Your task to perform on an android device: change notification settings in the gmail app Image 0: 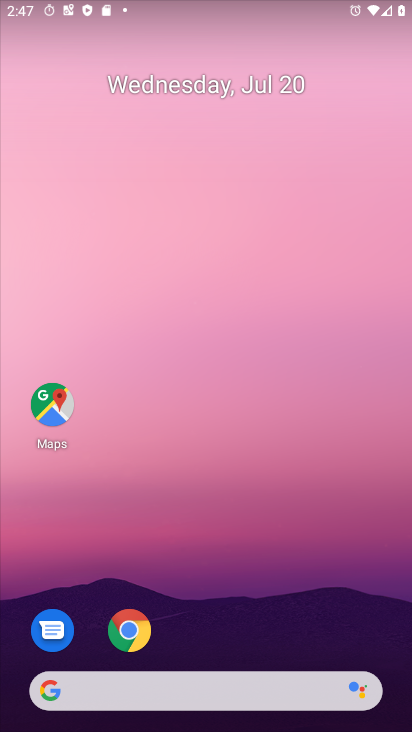
Step 0: drag from (175, 685) to (279, 190)
Your task to perform on an android device: change notification settings in the gmail app Image 1: 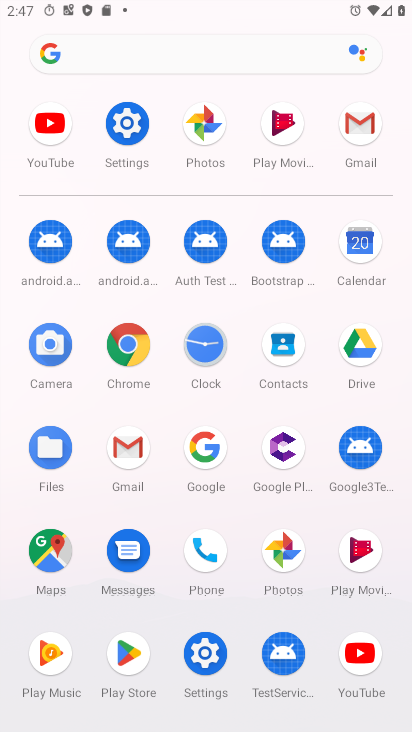
Step 1: click (361, 129)
Your task to perform on an android device: change notification settings in the gmail app Image 2: 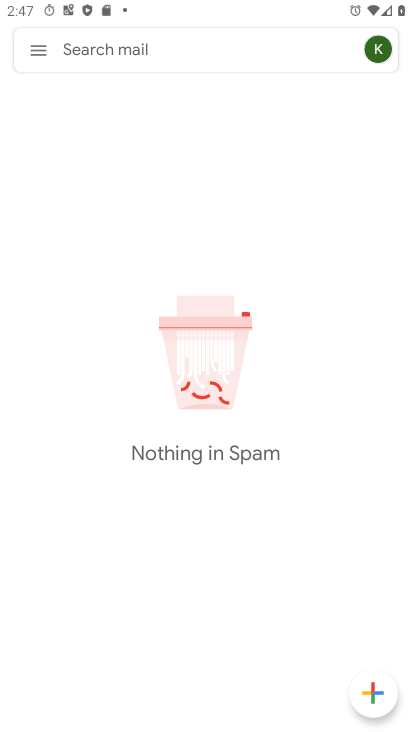
Step 2: click (39, 46)
Your task to perform on an android device: change notification settings in the gmail app Image 3: 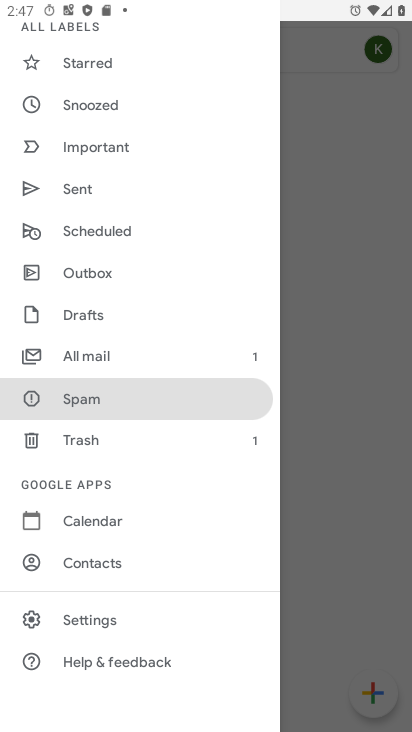
Step 3: click (113, 618)
Your task to perform on an android device: change notification settings in the gmail app Image 4: 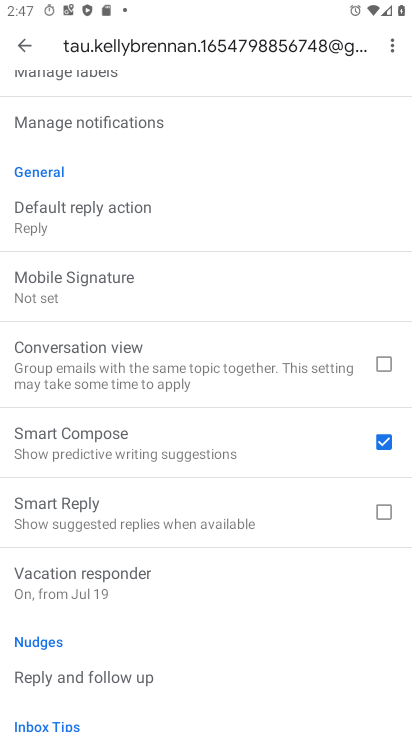
Step 4: drag from (284, 150) to (269, 498)
Your task to perform on an android device: change notification settings in the gmail app Image 5: 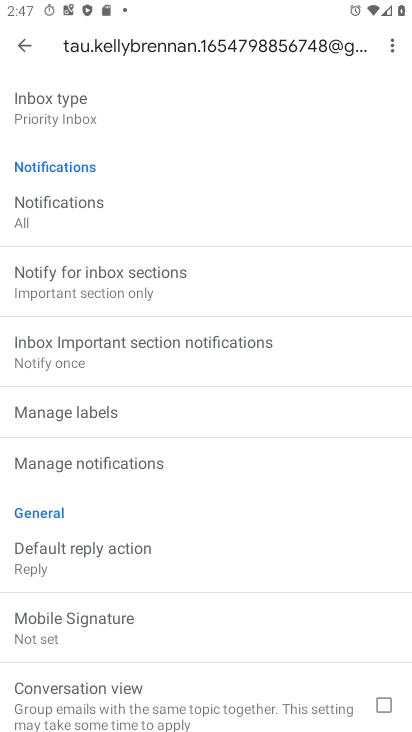
Step 5: click (33, 221)
Your task to perform on an android device: change notification settings in the gmail app Image 6: 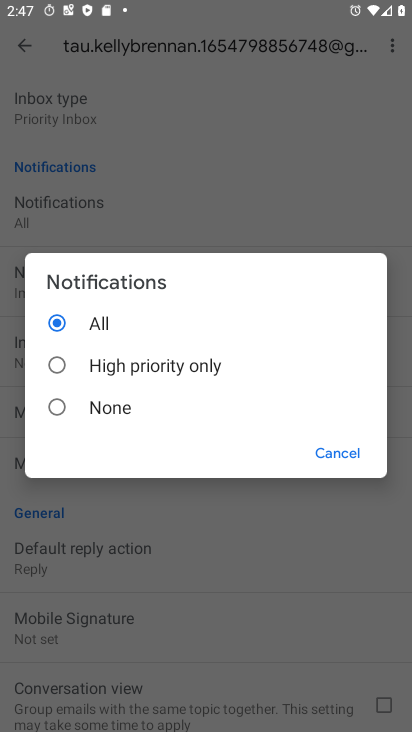
Step 6: click (56, 410)
Your task to perform on an android device: change notification settings in the gmail app Image 7: 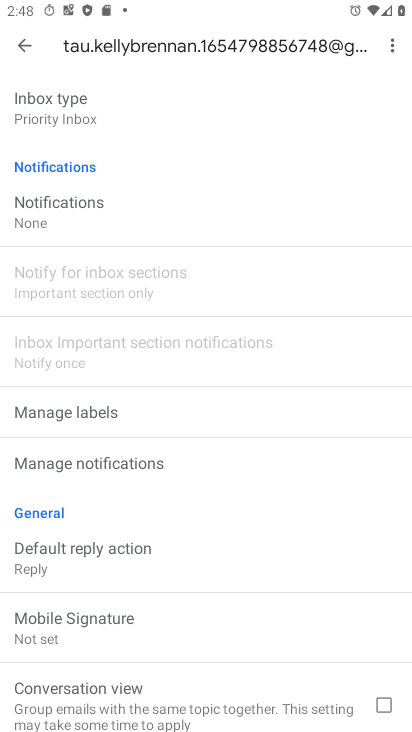
Step 7: task complete